Your task to perform on an android device: snooze an email in the gmail app Image 0: 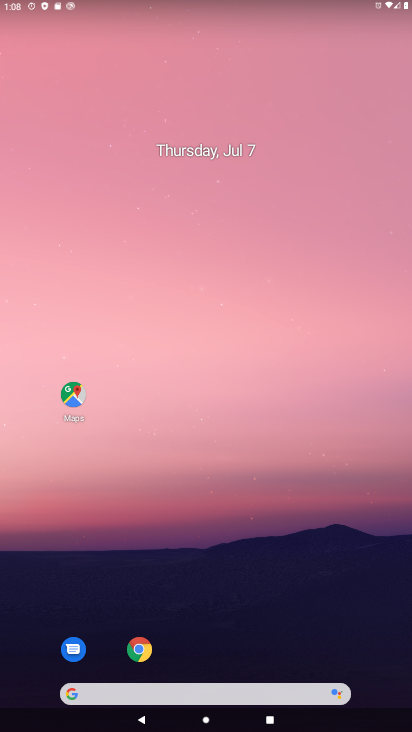
Step 0: drag from (211, 664) to (122, 131)
Your task to perform on an android device: snooze an email in the gmail app Image 1: 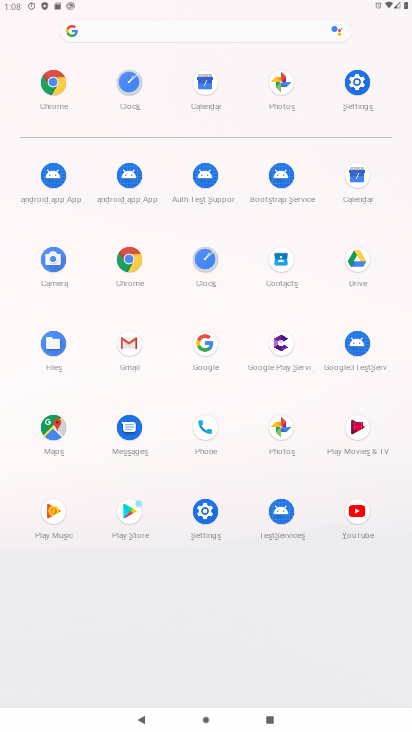
Step 1: click (124, 346)
Your task to perform on an android device: snooze an email in the gmail app Image 2: 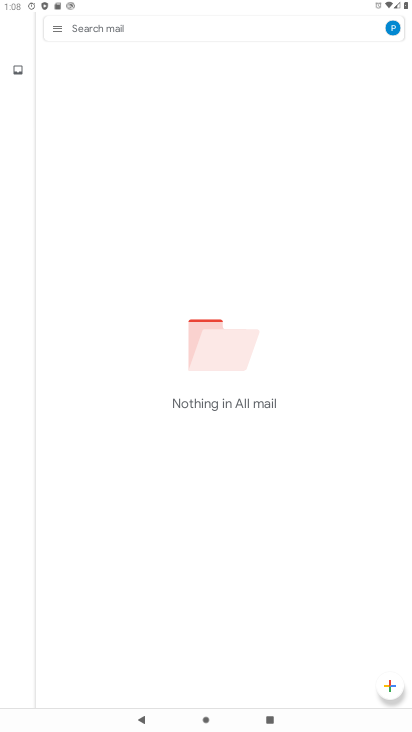
Step 2: task complete